Your task to perform on an android device: Open Google Maps and go to "Timeline" Image 0: 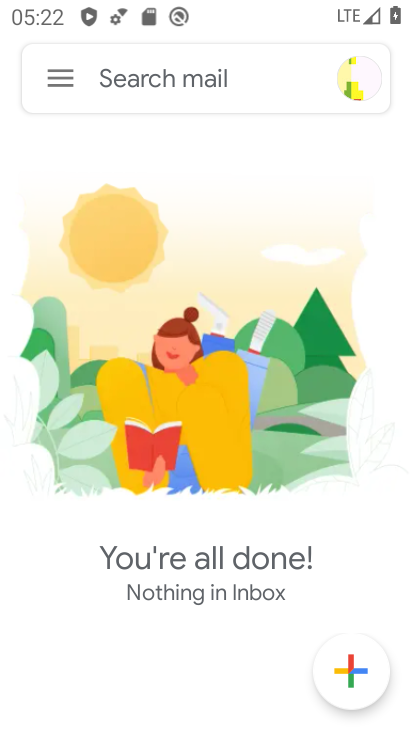
Step 0: press home button
Your task to perform on an android device: Open Google Maps and go to "Timeline" Image 1: 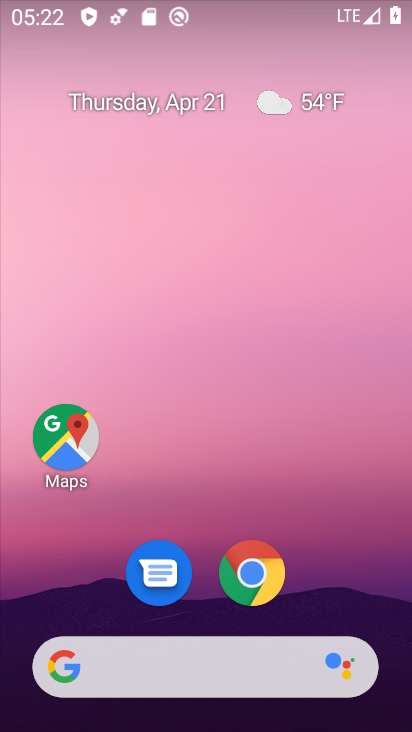
Step 1: click (63, 437)
Your task to perform on an android device: Open Google Maps and go to "Timeline" Image 2: 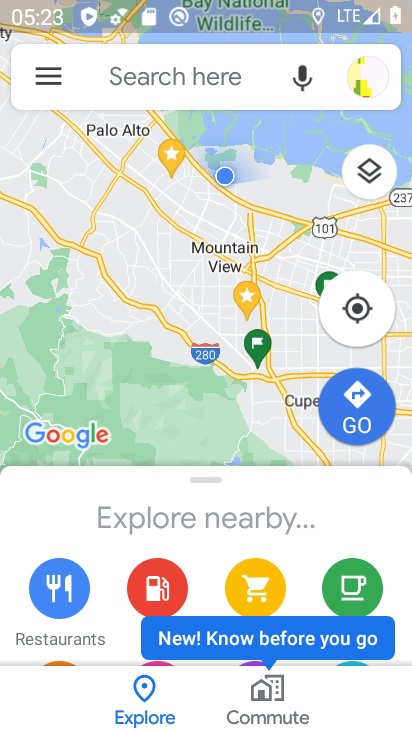
Step 2: click (46, 70)
Your task to perform on an android device: Open Google Maps and go to "Timeline" Image 3: 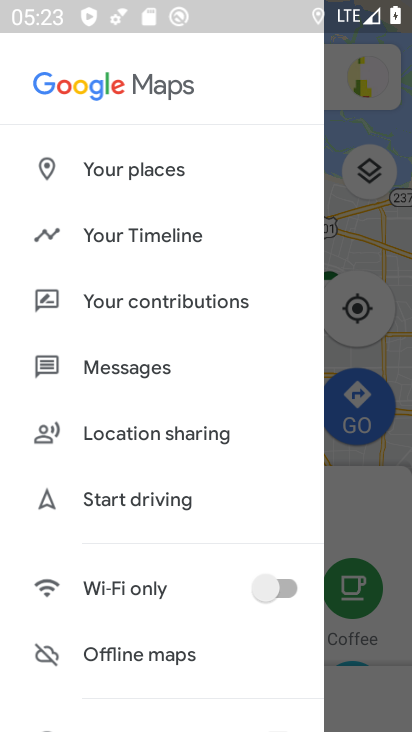
Step 3: click (145, 233)
Your task to perform on an android device: Open Google Maps and go to "Timeline" Image 4: 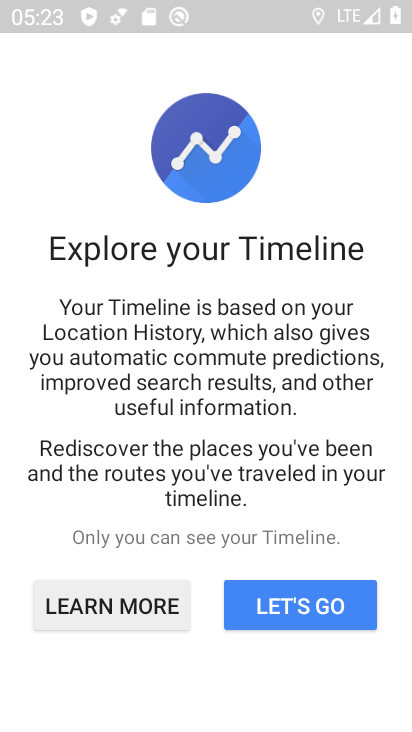
Step 4: task complete